Your task to perform on an android device: turn on data saver in the chrome app Image 0: 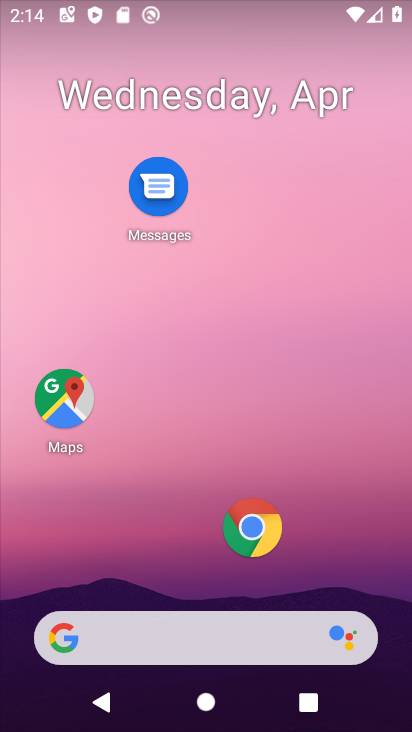
Step 0: click (245, 512)
Your task to perform on an android device: turn on data saver in the chrome app Image 1: 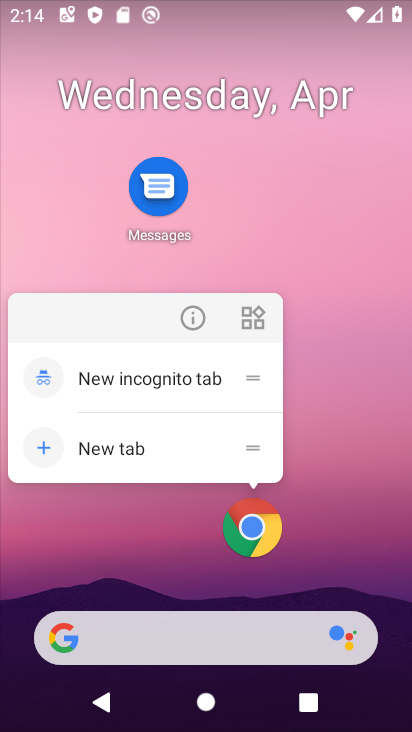
Step 1: click (257, 532)
Your task to perform on an android device: turn on data saver in the chrome app Image 2: 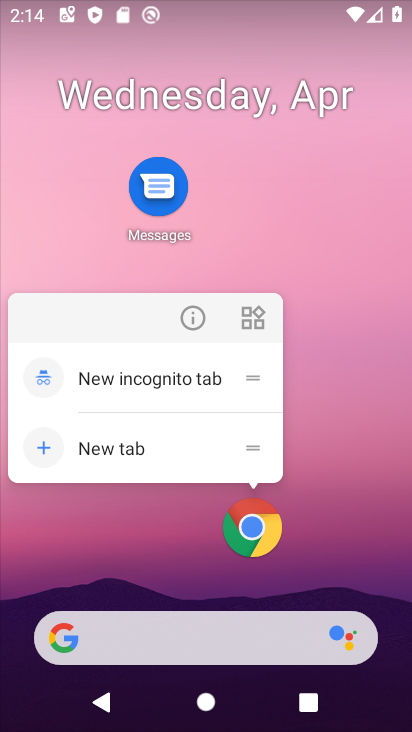
Step 2: click (265, 528)
Your task to perform on an android device: turn on data saver in the chrome app Image 3: 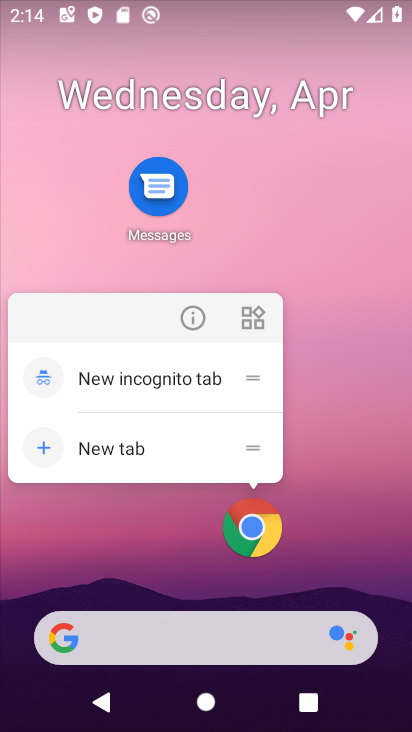
Step 3: click (244, 527)
Your task to perform on an android device: turn on data saver in the chrome app Image 4: 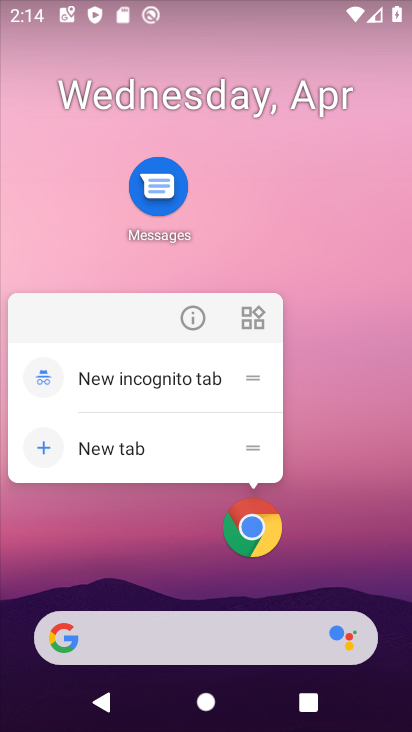
Step 4: click (250, 527)
Your task to perform on an android device: turn on data saver in the chrome app Image 5: 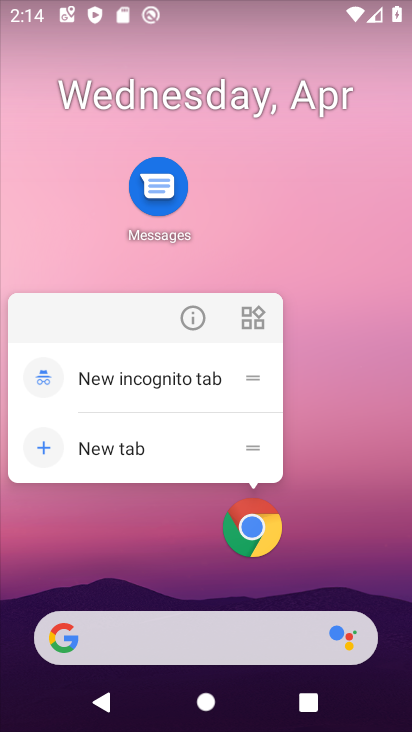
Step 5: click (256, 523)
Your task to perform on an android device: turn on data saver in the chrome app Image 6: 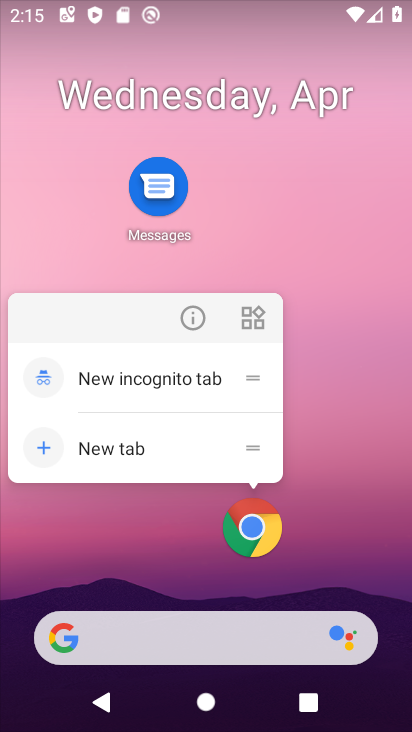
Step 6: click (191, 329)
Your task to perform on an android device: turn on data saver in the chrome app Image 7: 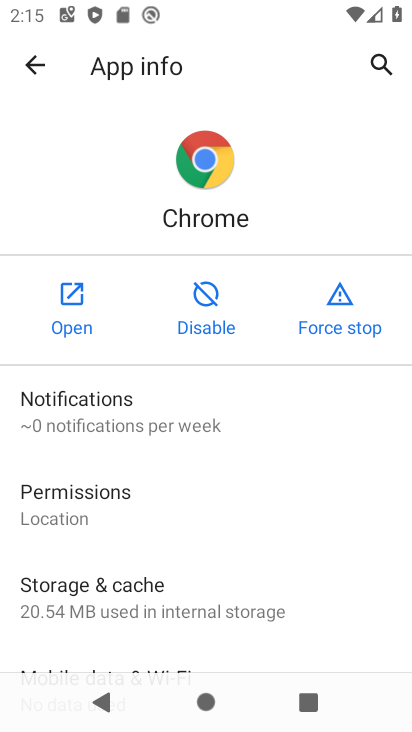
Step 7: click (80, 296)
Your task to perform on an android device: turn on data saver in the chrome app Image 8: 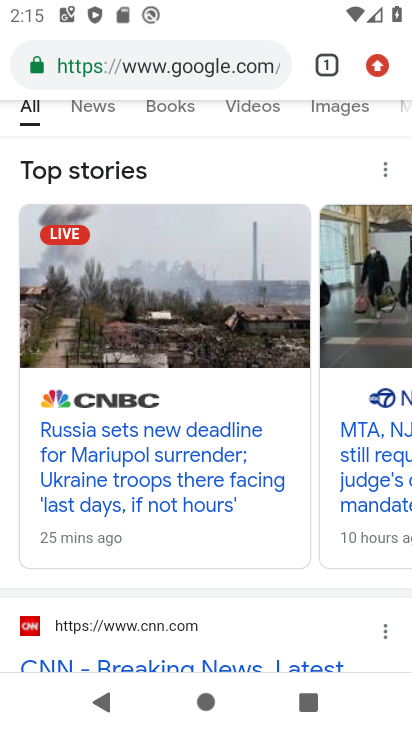
Step 8: click (382, 72)
Your task to perform on an android device: turn on data saver in the chrome app Image 9: 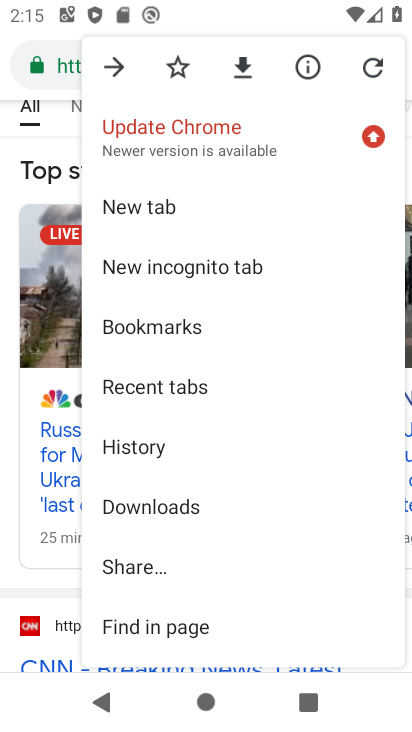
Step 9: drag from (189, 514) to (204, 243)
Your task to perform on an android device: turn on data saver in the chrome app Image 10: 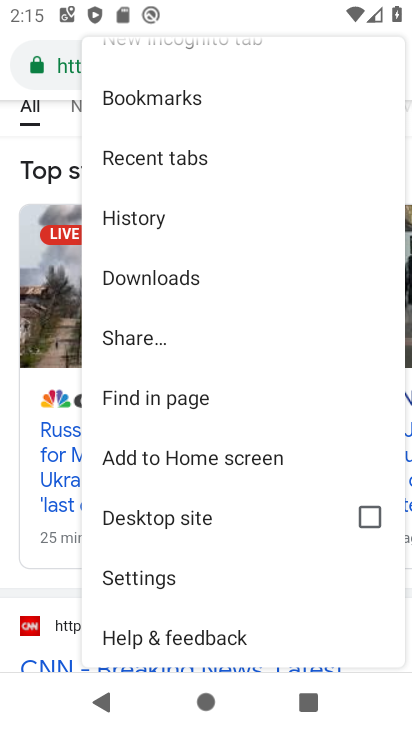
Step 10: click (146, 576)
Your task to perform on an android device: turn on data saver in the chrome app Image 11: 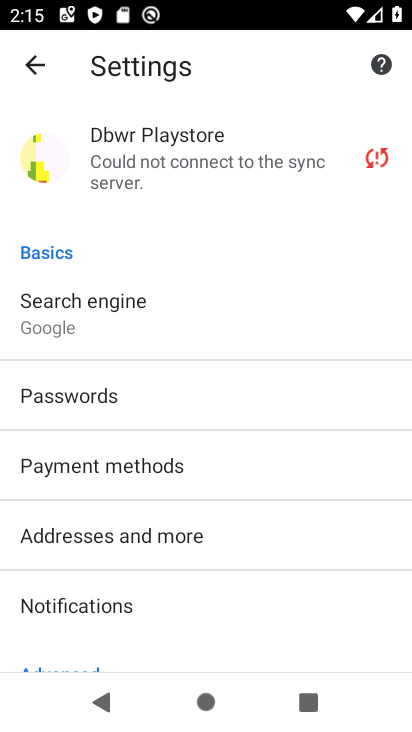
Step 11: drag from (88, 561) to (121, 290)
Your task to perform on an android device: turn on data saver in the chrome app Image 12: 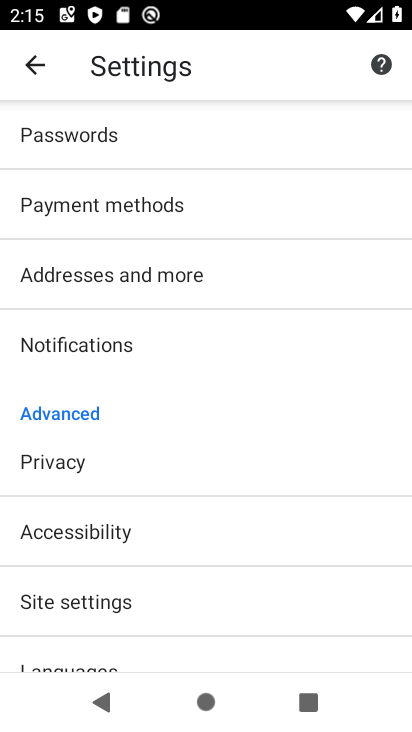
Step 12: drag from (201, 605) to (211, 448)
Your task to perform on an android device: turn on data saver in the chrome app Image 13: 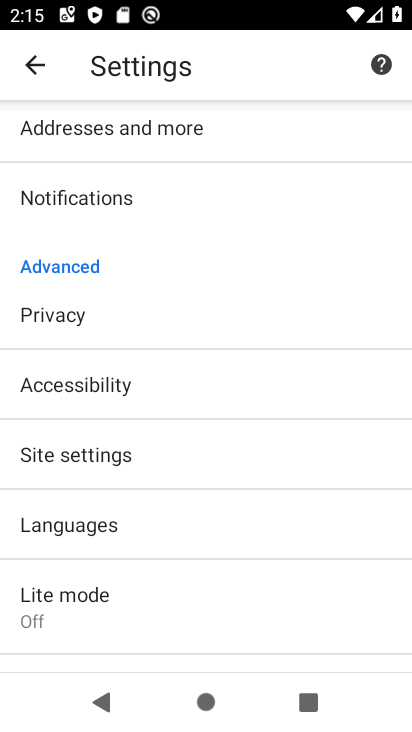
Step 13: click (104, 594)
Your task to perform on an android device: turn on data saver in the chrome app Image 14: 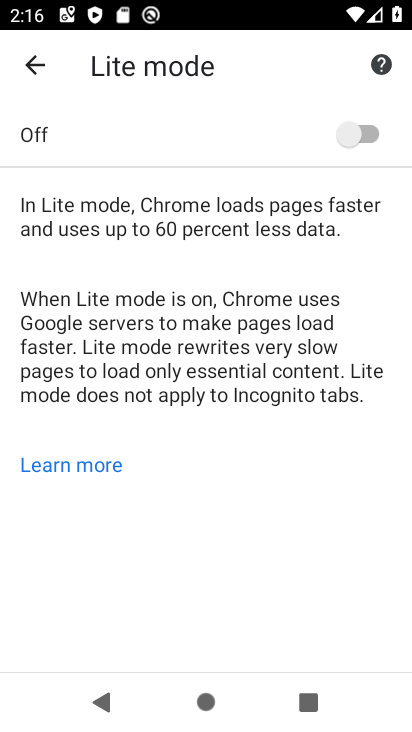
Step 14: click (342, 133)
Your task to perform on an android device: turn on data saver in the chrome app Image 15: 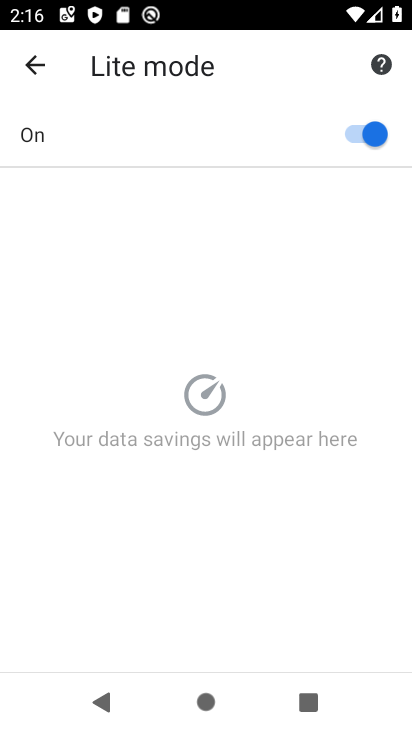
Step 15: task complete